Your task to perform on an android device: set an alarm Image 0: 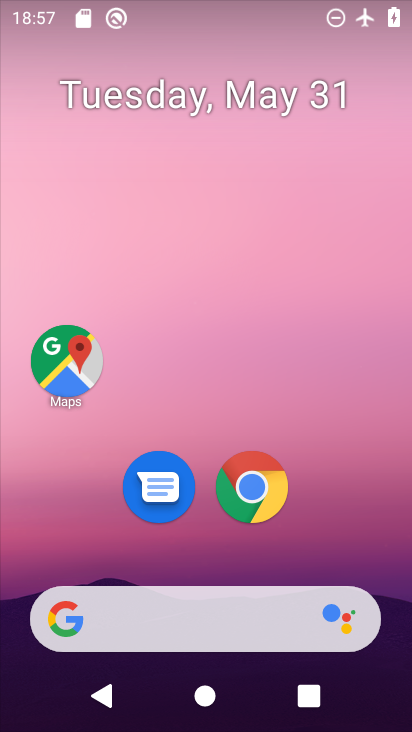
Step 0: drag from (348, 502) to (212, 9)
Your task to perform on an android device: set an alarm Image 1: 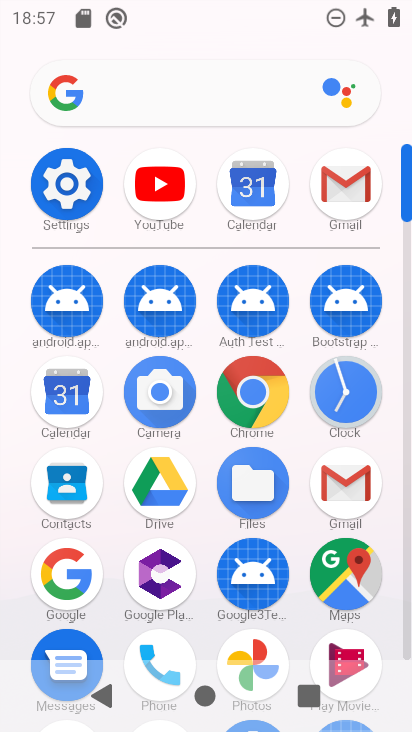
Step 1: click (341, 414)
Your task to perform on an android device: set an alarm Image 2: 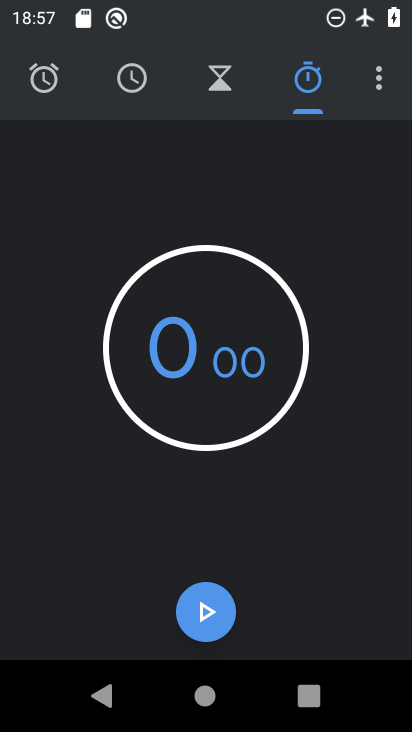
Step 2: click (380, 75)
Your task to perform on an android device: set an alarm Image 3: 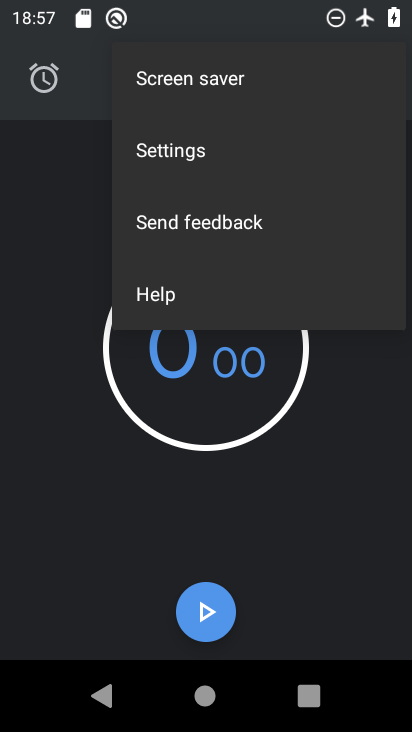
Step 3: click (50, 79)
Your task to perform on an android device: set an alarm Image 4: 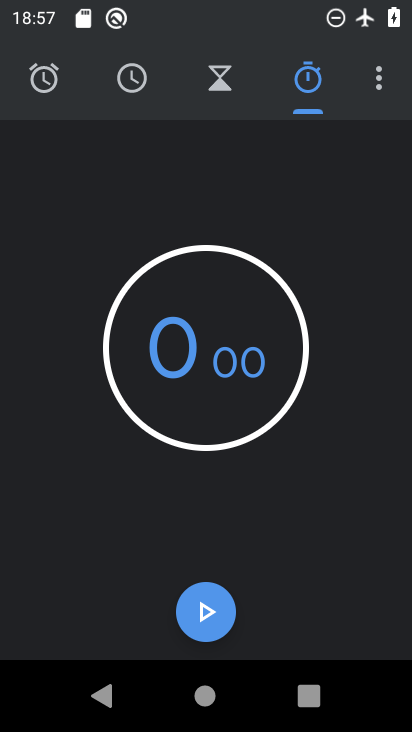
Step 4: click (50, 79)
Your task to perform on an android device: set an alarm Image 5: 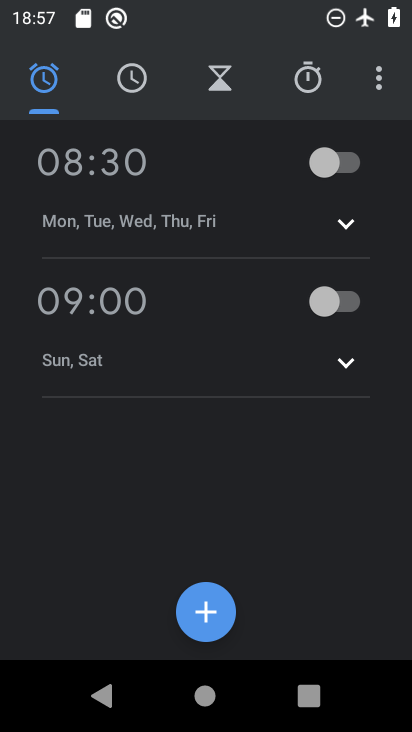
Step 5: click (207, 618)
Your task to perform on an android device: set an alarm Image 6: 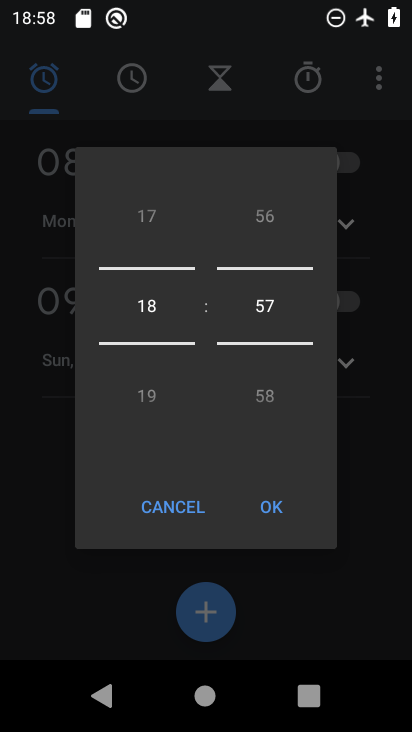
Step 6: click (272, 497)
Your task to perform on an android device: set an alarm Image 7: 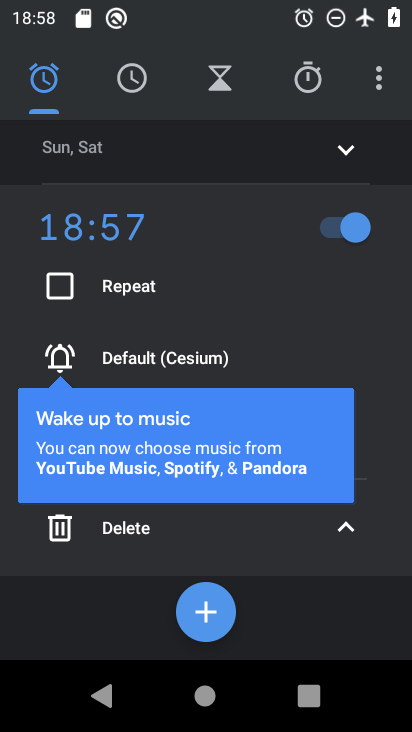
Step 7: task complete